Your task to perform on an android device: What's on my calendar today? Image 0: 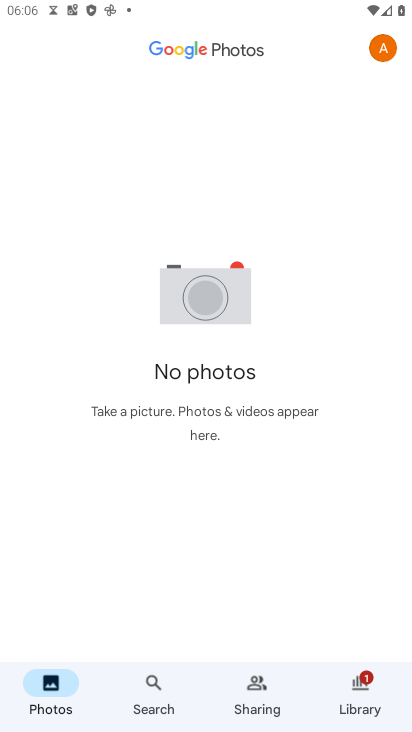
Step 0: press home button
Your task to perform on an android device: What's on my calendar today? Image 1: 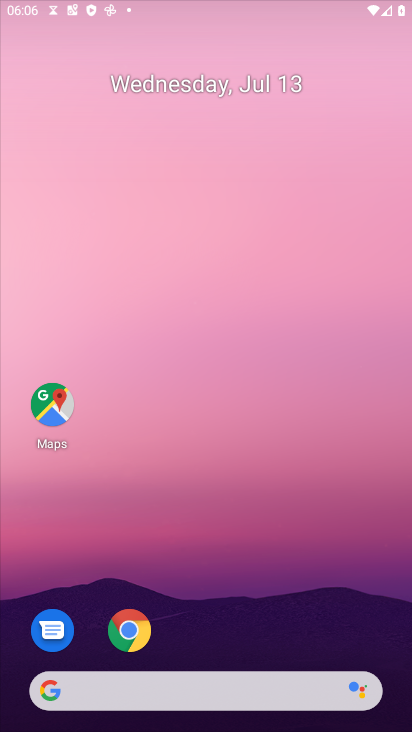
Step 1: drag from (282, 686) to (376, 0)
Your task to perform on an android device: What's on my calendar today? Image 2: 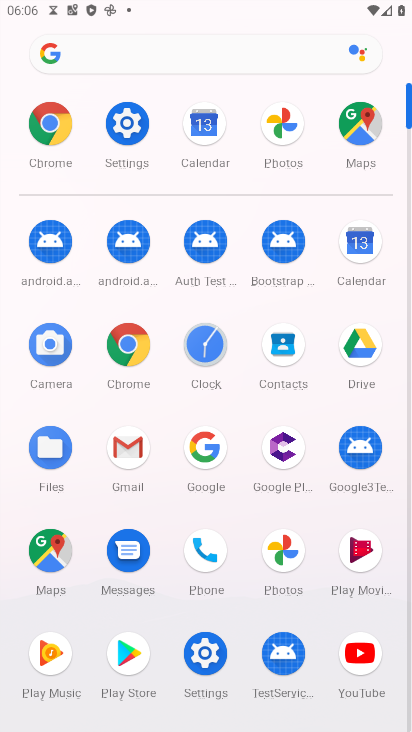
Step 2: click (359, 269)
Your task to perform on an android device: What's on my calendar today? Image 3: 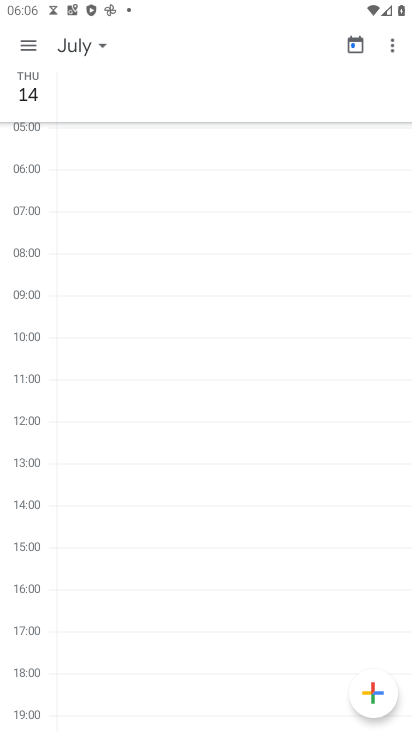
Step 3: click (96, 35)
Your task to perform on an android device: What's on my calendar today? Image 4: 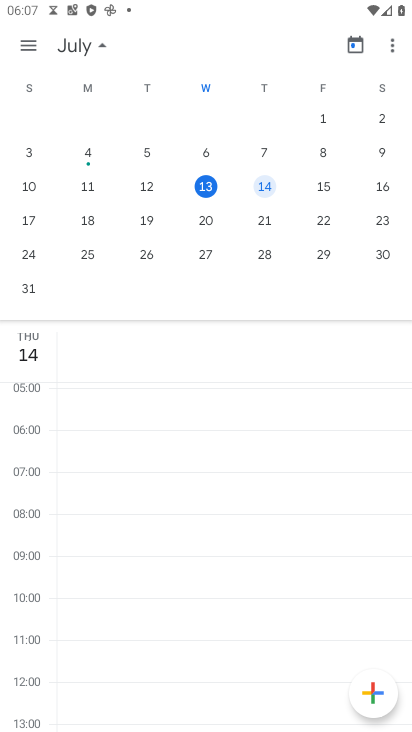
Step 4: click (205, 186)
Your task to perform on an android device: What's on my calendar today? Image 5: 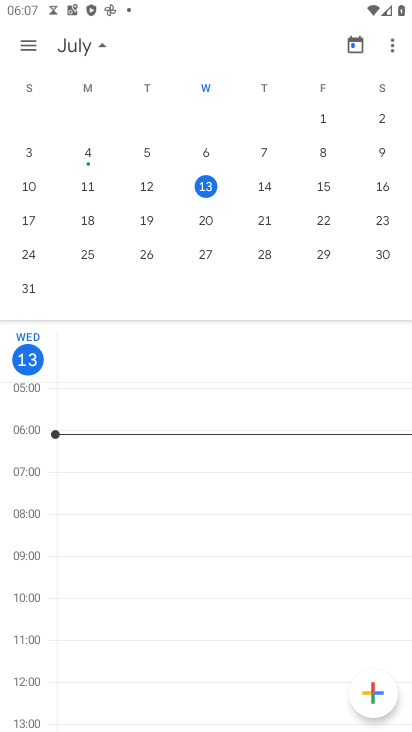
Step 5: task complete